Your task to perform on an android device: Toggle the flashlight Image 0: 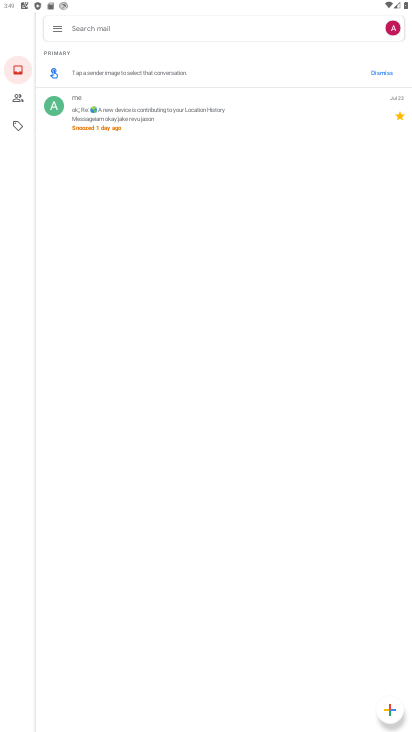
Step 0: drag from (340, 2) to (398, 88)
Your task to perform on an android device: Toggle the flashlight Image 1: 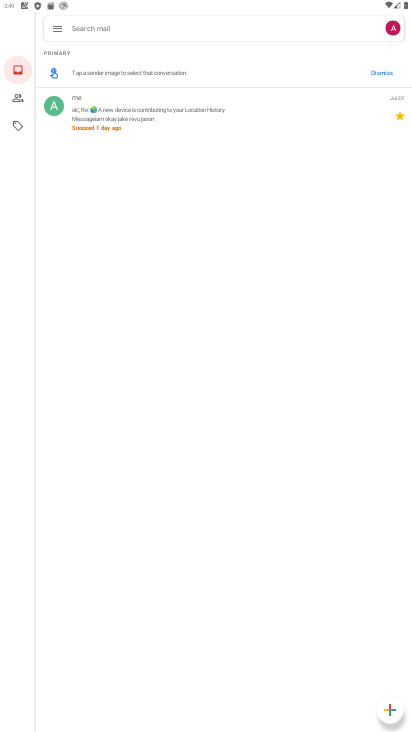
Step 1: drag from (299, 2) to (329, 603)
Your task to perform on an android device: Toggle the flashlight Image 2: 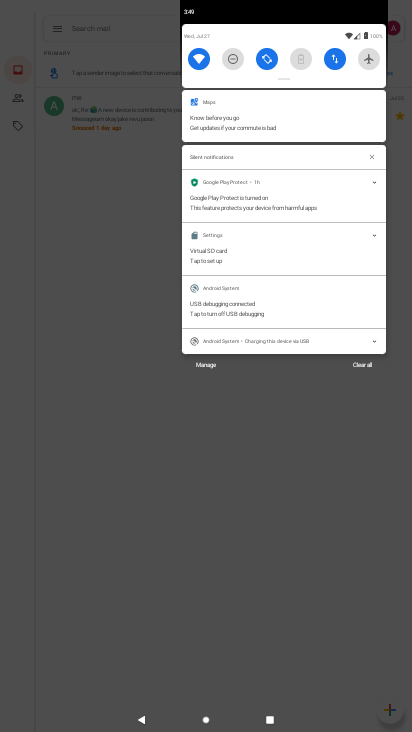
Step 2: drag from (280, 79) to (276, 394)
Your task to perform on an android device: Toggle the flashlight Image 3: 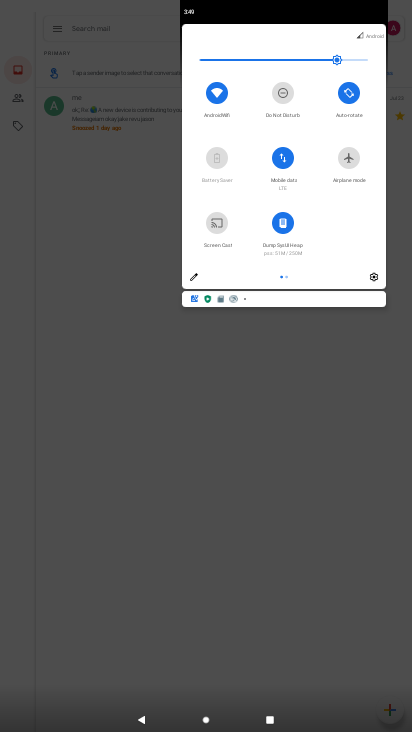
Step 3: click (190, 275)
Your task to perform on an android device: Toggle the flashlight Image 4: 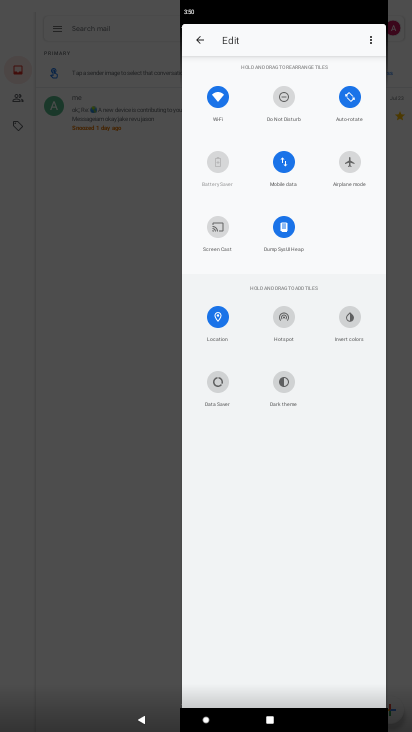
Step 4: task complete